Your task to perform on an android device: snooze an email in the gmail app Image 0: 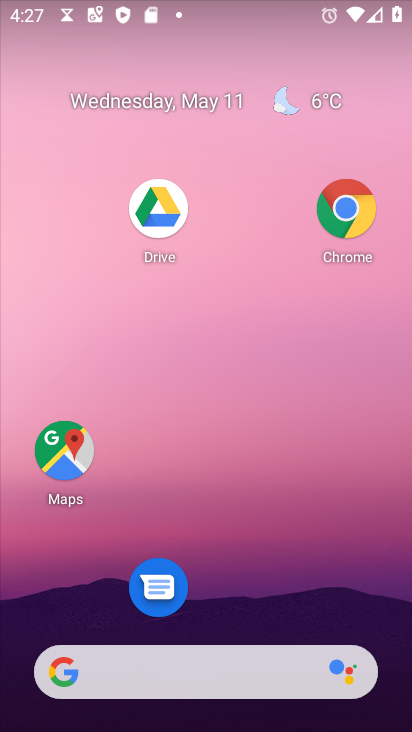
Step 0: drag from (309, 506) to (172, 0)
Your task to perform on an android device: snooze an email in the gmail app Image 1: 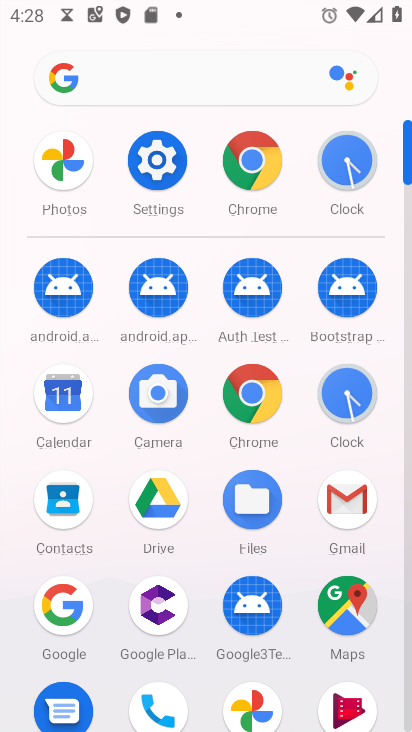
Step 1: drag from (204, 674) to (191, 335)
Your task to perform on an android device: snooze an email in the gmail app Image 2: 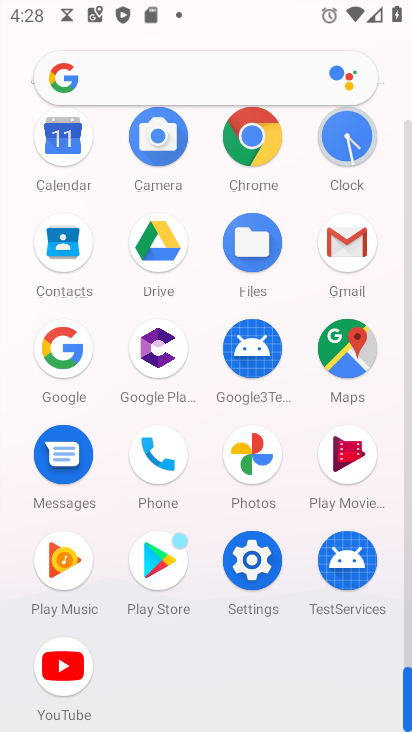
Step 2: drag from (185, 243) to (142, 693)
Your task to perform on an android device: snooze an email in the gmail app Image 3: 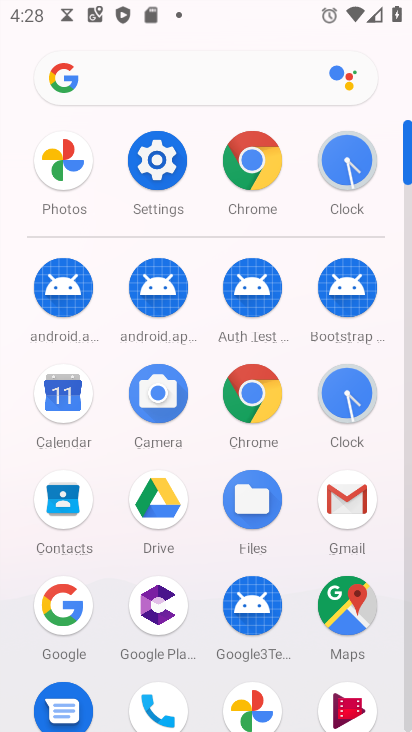
Step 3: click (361, 483)
Your task to perform on an android device: snooze an email in the gmail app Image 4: 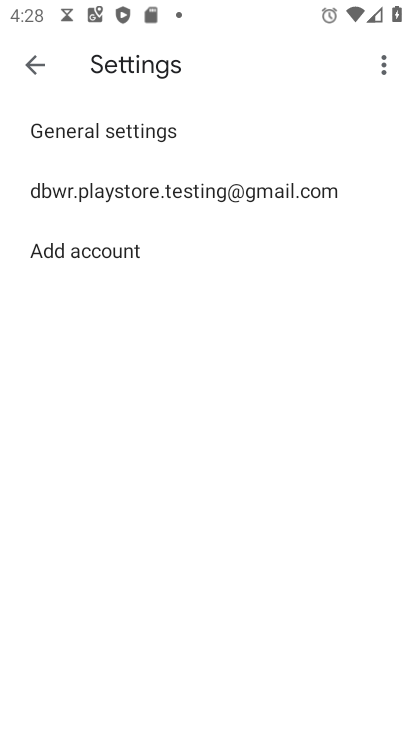
Step 4: click (31, 68)
Your task to perform on an android device: snooze an email in the gmail app Image 5: 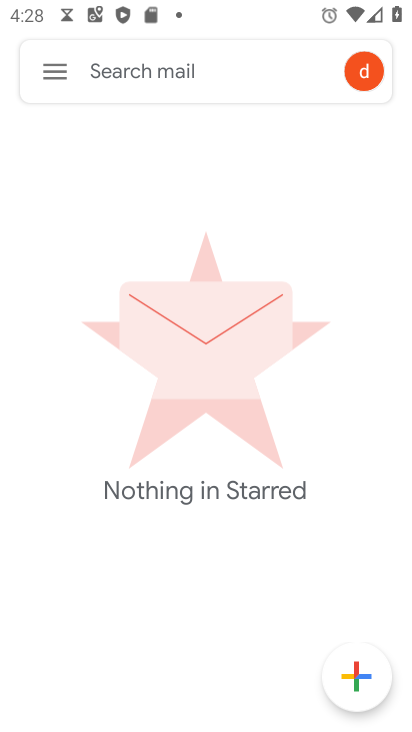
Step 5: task complete